Your task to perform on an android device: check storage Image 0: 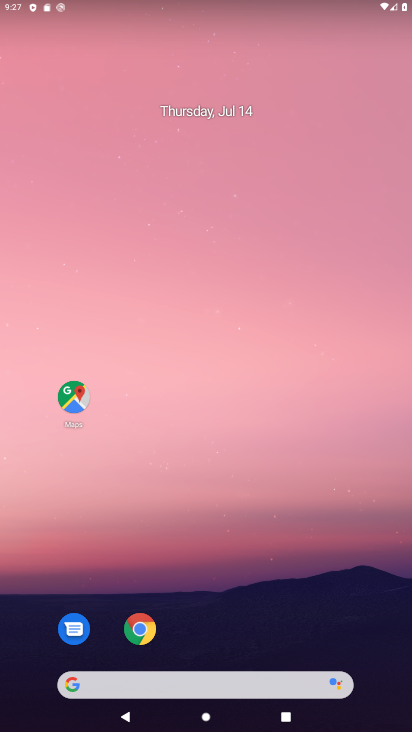
Step 0: drag from (240, 629) to (258, 168)
Your task to perform on an android device: check storage Image 1: 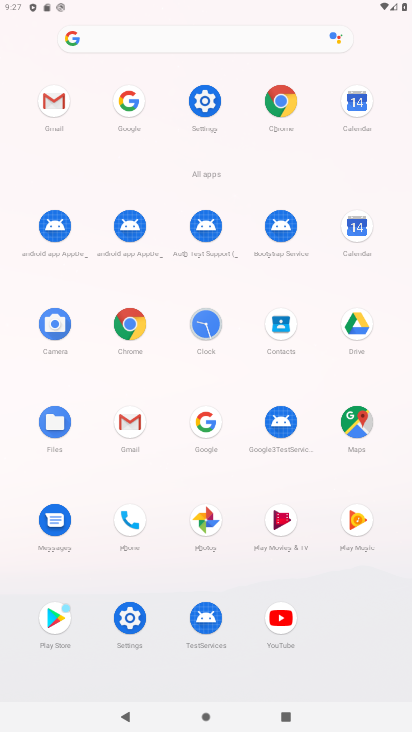
Step 1: click (201, 105)
Your task to perform on an android device: check storage Image 2: 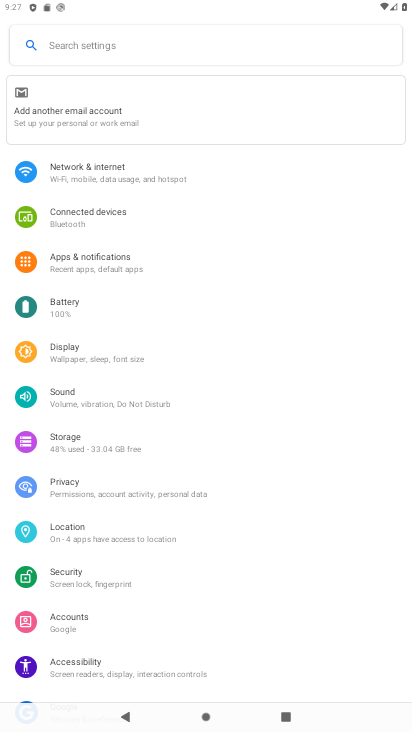
Step 2: click (76, 441)
Your task to perform on an android device: check storage Image 3: 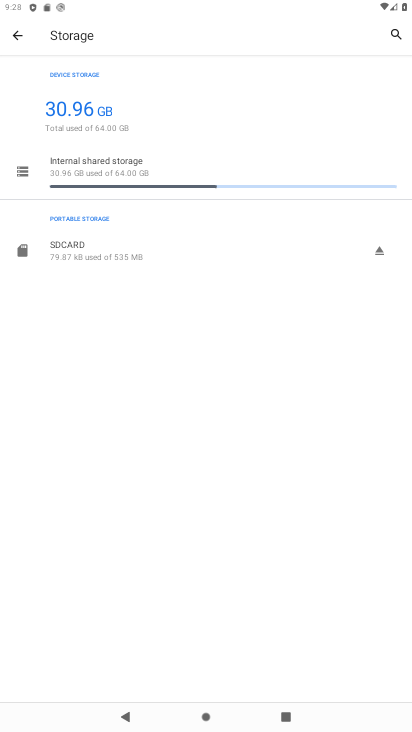
Step 3: task complete